Your task to perform on an android device: turn off notifications in google photos Image 0: 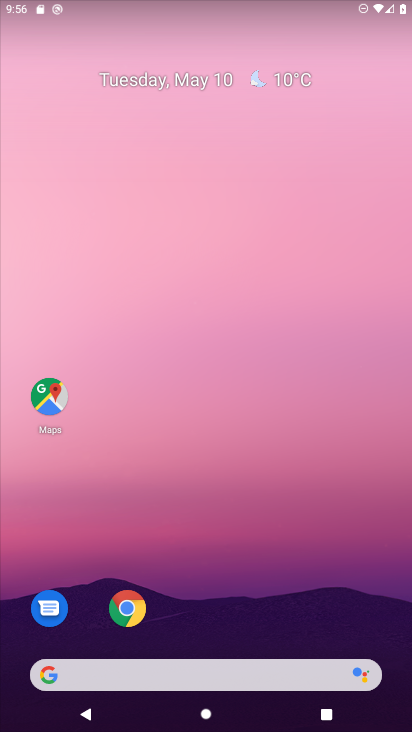
Step 0: drag from (278, 615) to (252, 46)
Your task to perform on an android device: turn off notifications in google photos Image 1: 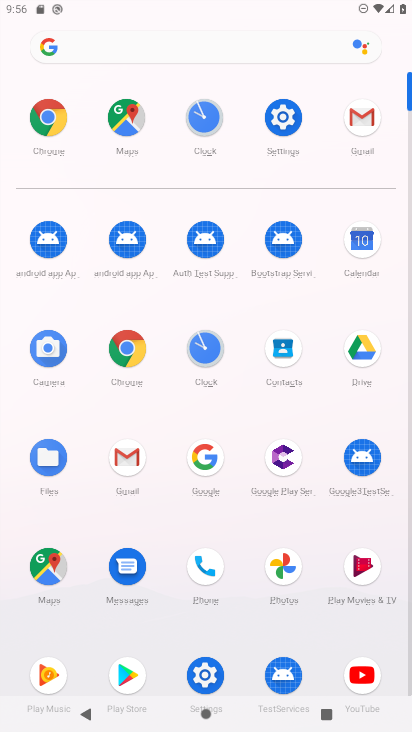
Step 1: click (279, 574)
Your task to perform on an android device: turn off notifications in google photos Image 2: 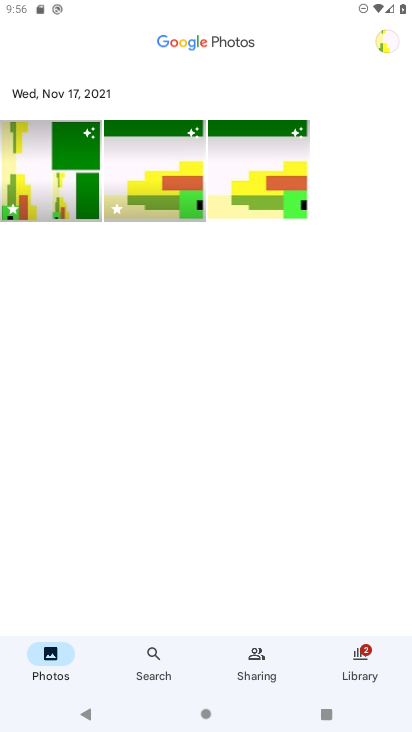
Step 2: click (384, 43)
Your task to perform on an android device: turn off notifications in google photos Image 3: 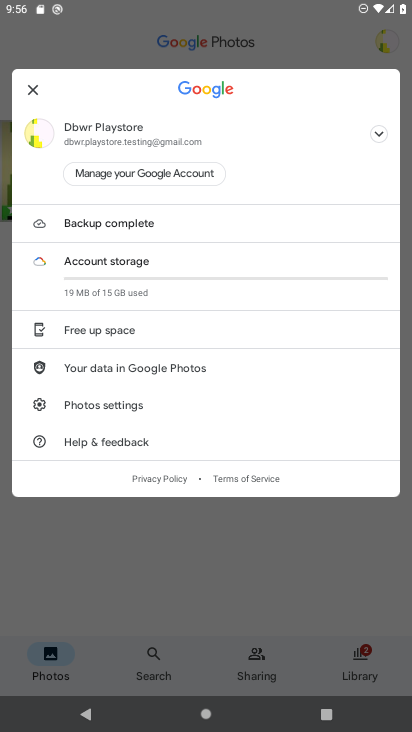
Step 3: click (110, 401)
Your task to perform on an android device: turn off notifications in google photos Image 4: 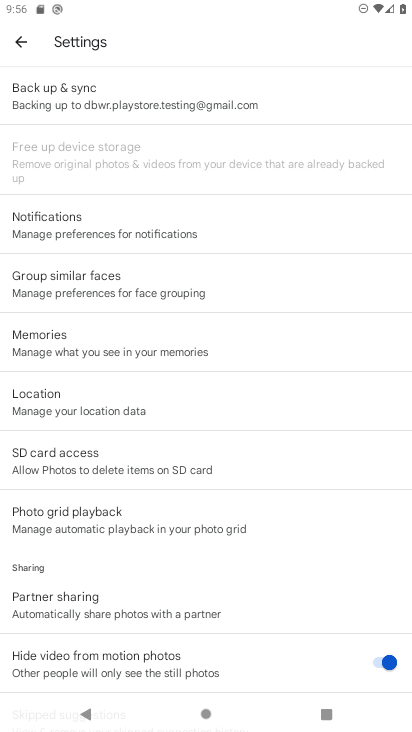
Step 4: click (156, 232)
Your task to perform on an android device: turn off notifications in google photos Image 5: 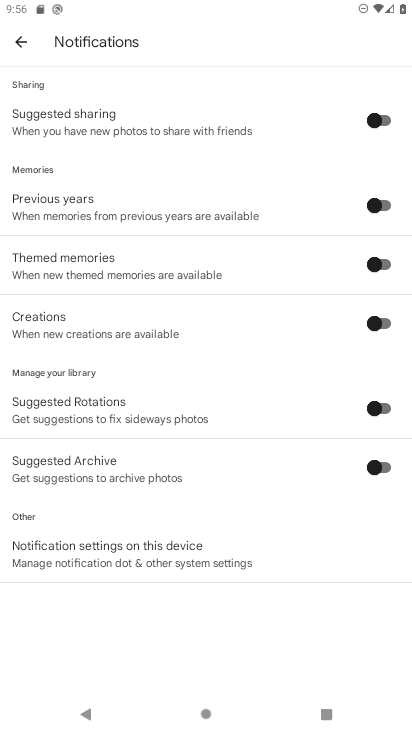
Step 5: task complete